Your task to perform on an android device: see sites visited before in the chrome app Image 0: 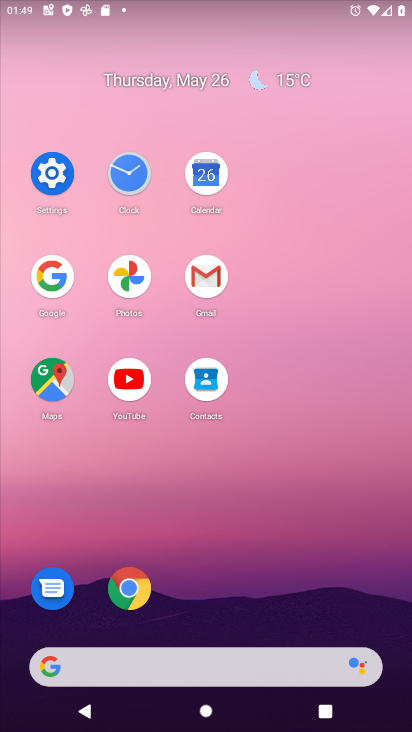
Step 0: click (131, 584)
Your task to perform on an android device: see sites visited before in the chrome app Image 1: 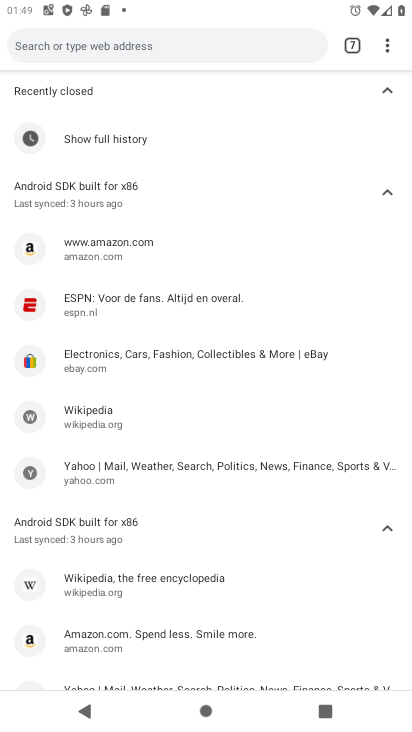
Step 1: click (393, 50)
Your task to perform on an android device: see sites visited before in the chrome app Image 2: 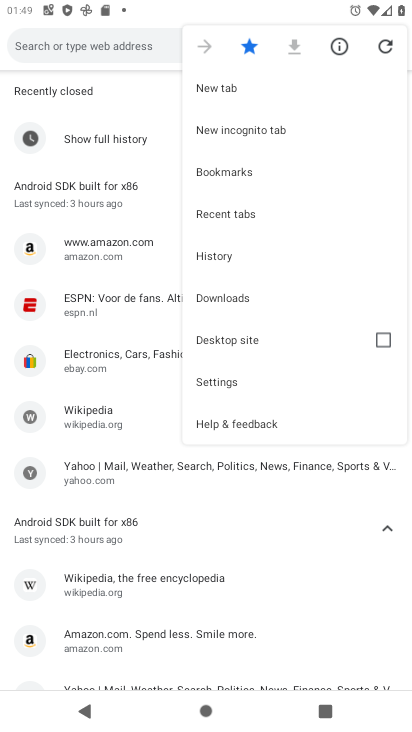
Step 2: click (269, 217)
Your task to perform on an android device: see sites visited before in the chrome app Image 3: 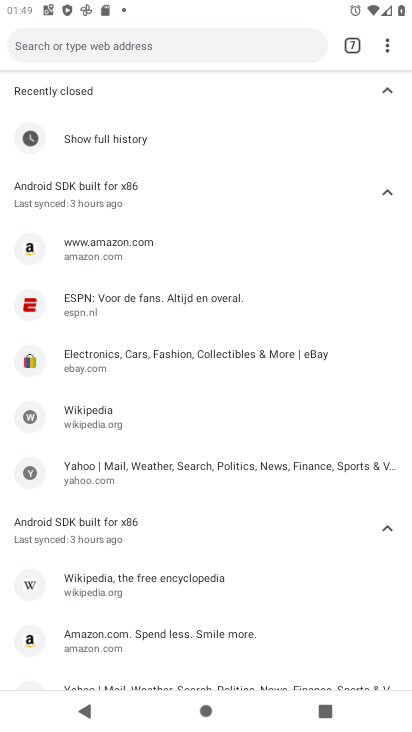
Step 3: task complete